Your task to perform on an android device: Check the news Image 0: 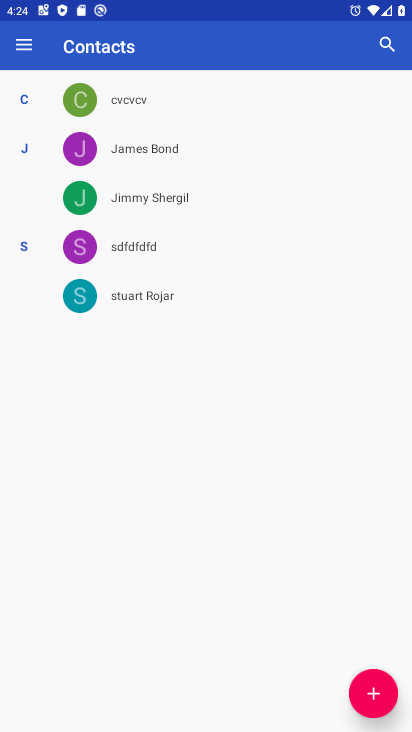
Step 0: press home button
Your task to perform on an android device: Check the news Image 1: 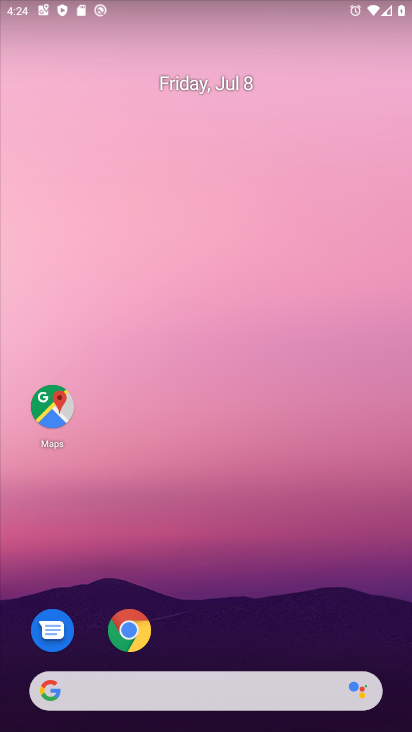
Step 1: drag from (207, 659) to (231, 89)
Your task to perform on an android device: Check the news Image 2: 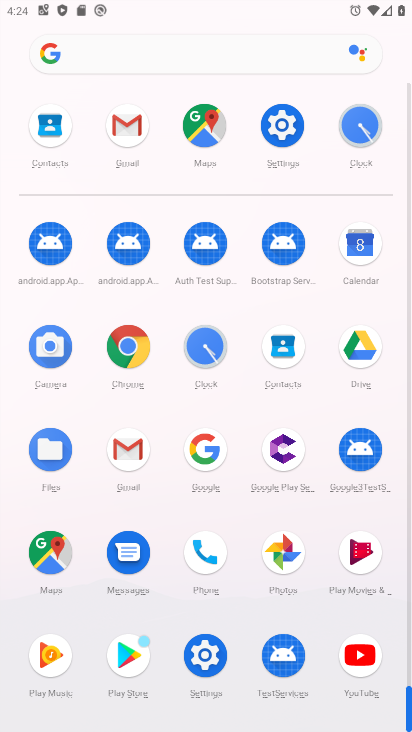
Step 2: click (205, 444)
Your task to perform on an android device: Check the news Image 3: 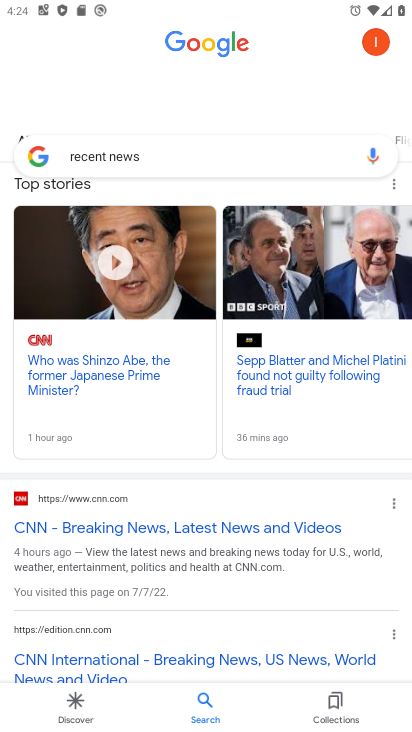
Step 3: click (135, 371)
Your task to perform on an android device: Check the news Image 4: 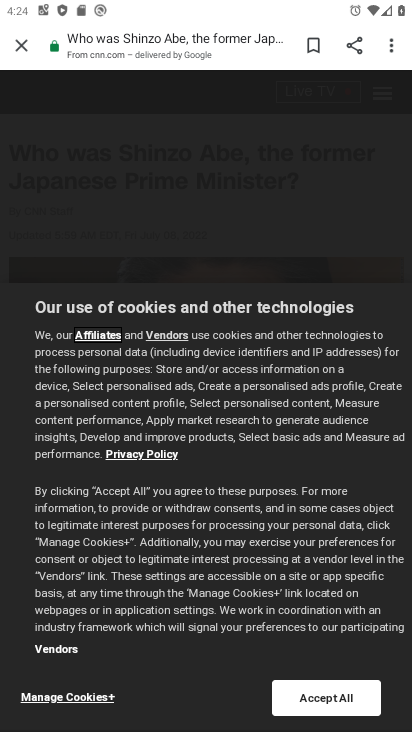
Step 4: click (325, 697)
Your task to perform on an android device: Check the news Image 5: 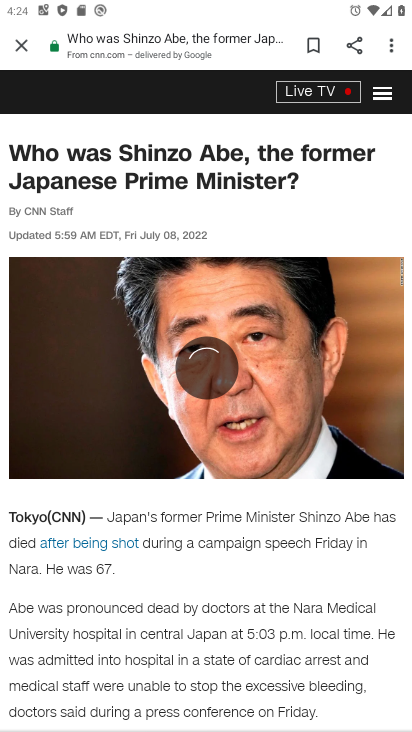
Step 5: task complete